Your task to perform on an android device: change the clock display to show seconds Image 0: 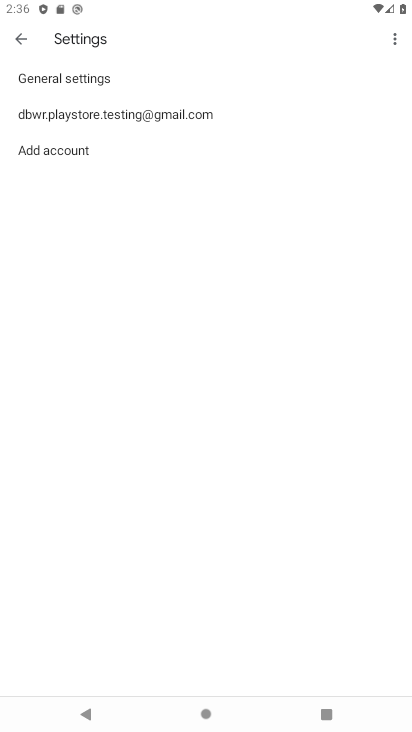
Step 0: press home button
Your task to perform on an android device: change the clock display to show seconds Image 1: 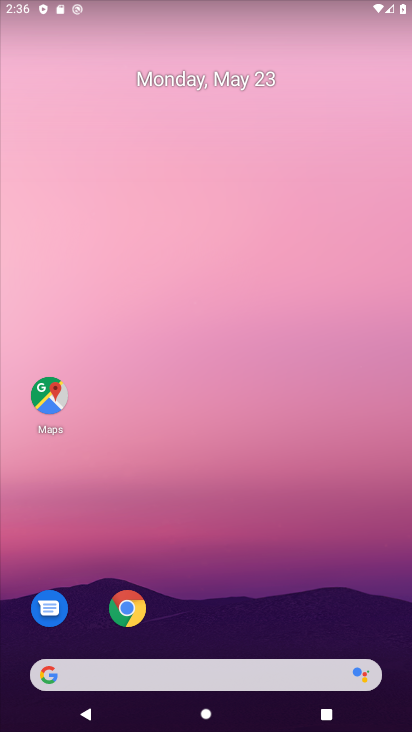
Step 1: drag from (325, 570) to (343, 152)
Your task to perform on an android device: change the clock display to show seconds Image 2: 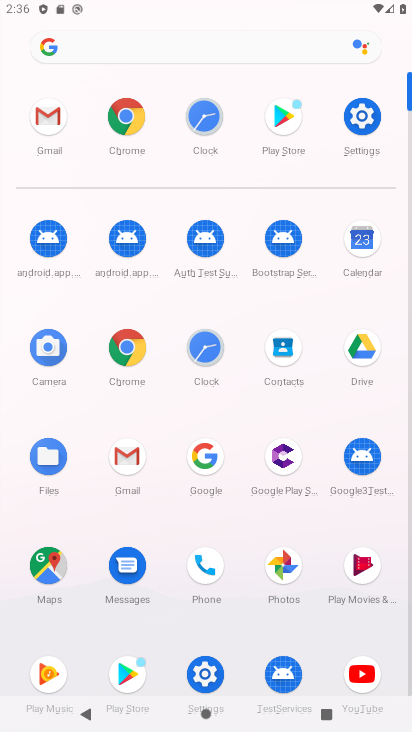
Step 2: click (199, 347)
Your task to perform on an android device: change the clock display to show seconds Image 3: 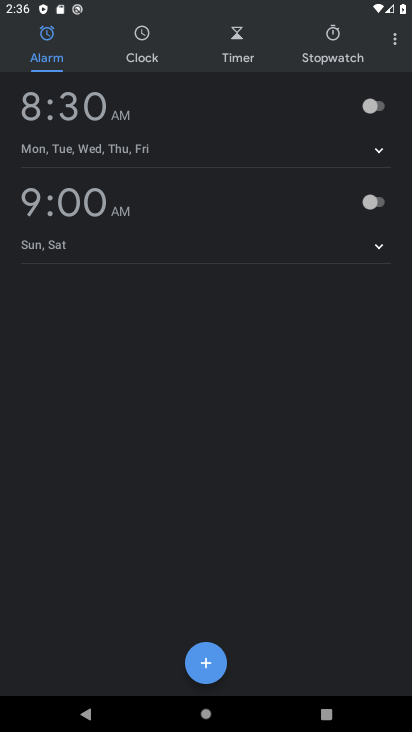
Step 3: click (389, 44)
Your task to perform on an android device: change the clock display to show seconds Image 4: 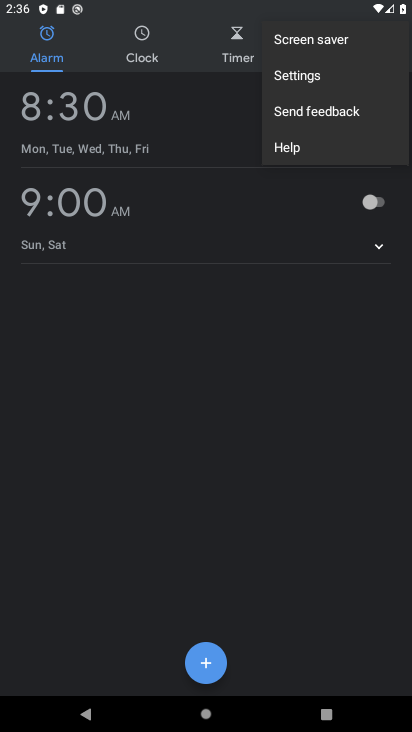
Step 4: click (315, 68)
Your task to perform on an android device: change the clock display to show seconds Image 5: 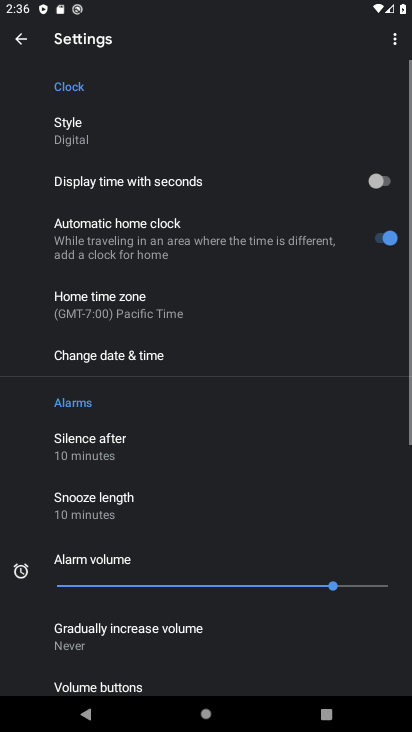
Step 5: click (184, 154)
Your task to perform on an android device: change the clock display to show seconds Image 6: 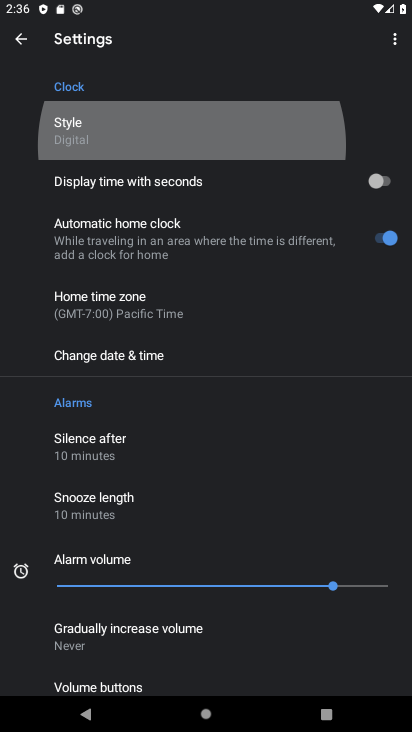
Step 6: drag from (190, 165) to (202, 545)
Your task to perform on an android device: change the clock display to show seconds Image 7: 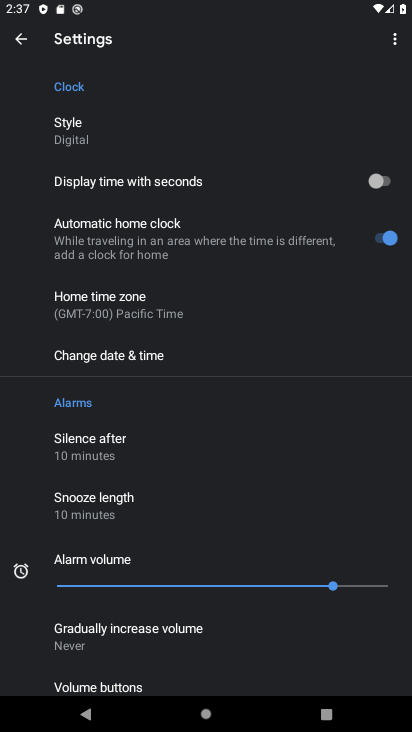
Step 7: drag from (182, 201) to (172, 436)
Your task to perform on an android device: change the clock display to show seconds Image 8: 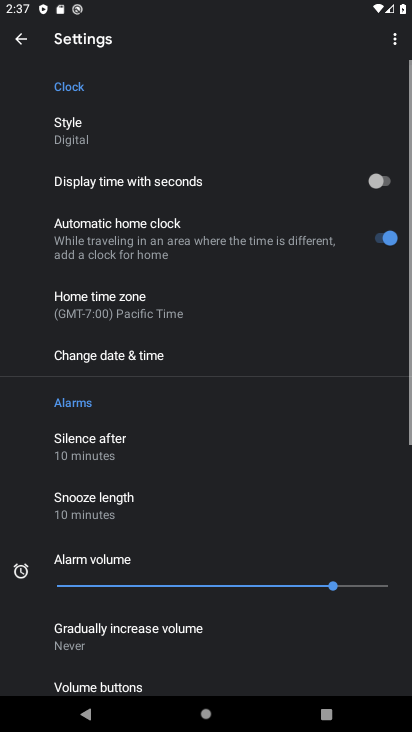
Step 8: drag from (192, 318) to (186, 585)
Your task to perform on an android device: change the clock display to show seconds Image 9: 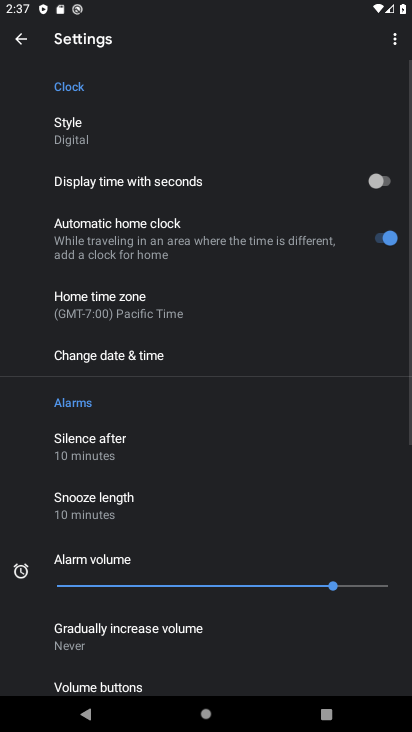
Step 9: drag from (250, 285) to (256, 608)
Your task to perform on an android device: change the clock display to show seconds Image 10: 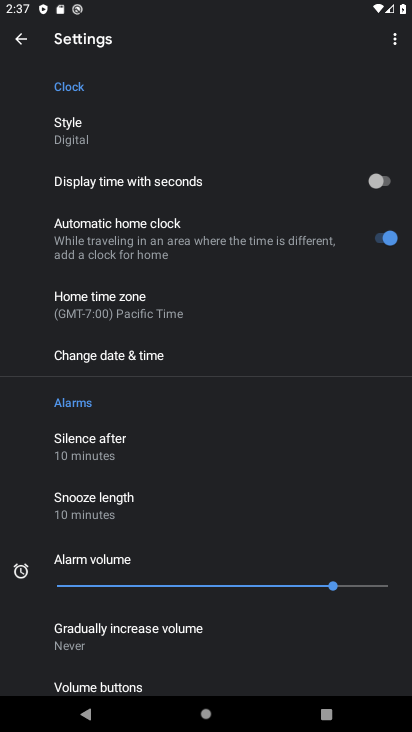
Step 10: click (387, 181)
Your task to perform on an android device: change the clock display to show seconds Image 11: 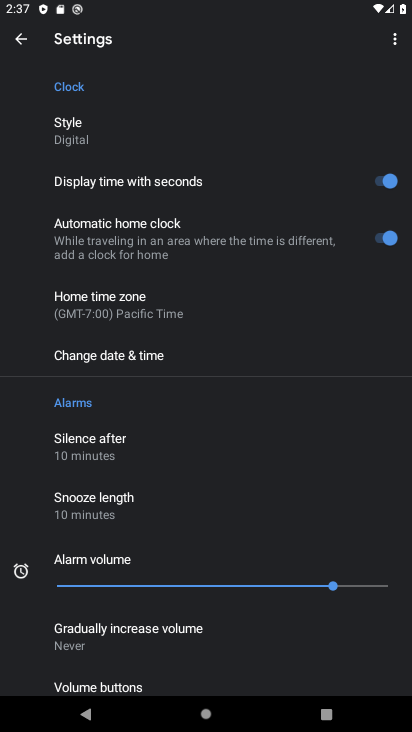
Step 11: task complete